Your task to perform on an android device: Toggle the flashlight Image 0: 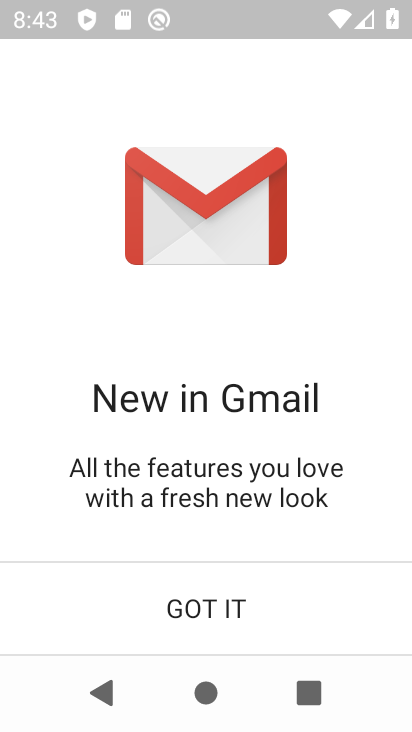
Step 0: drag from (265, 0) to (236, 424)
Your task to perform on an android device: Toggle the flashlight Image 1: 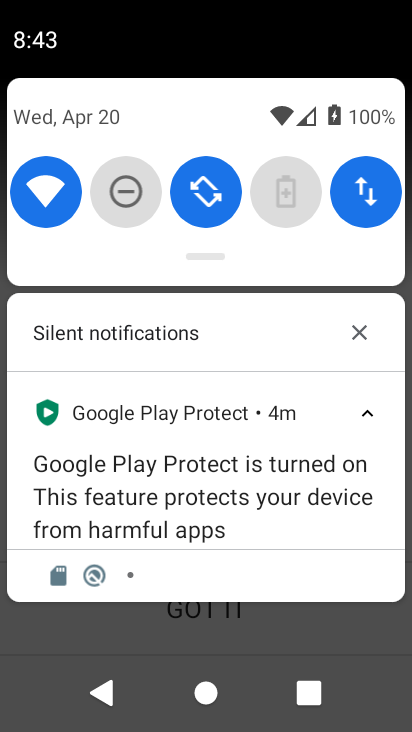
Step 1: task complete